Your task to perform on an android device: View the shopping cart on ebay. Add "macbook" to the cart on ebay, then select checkout. Image 0: 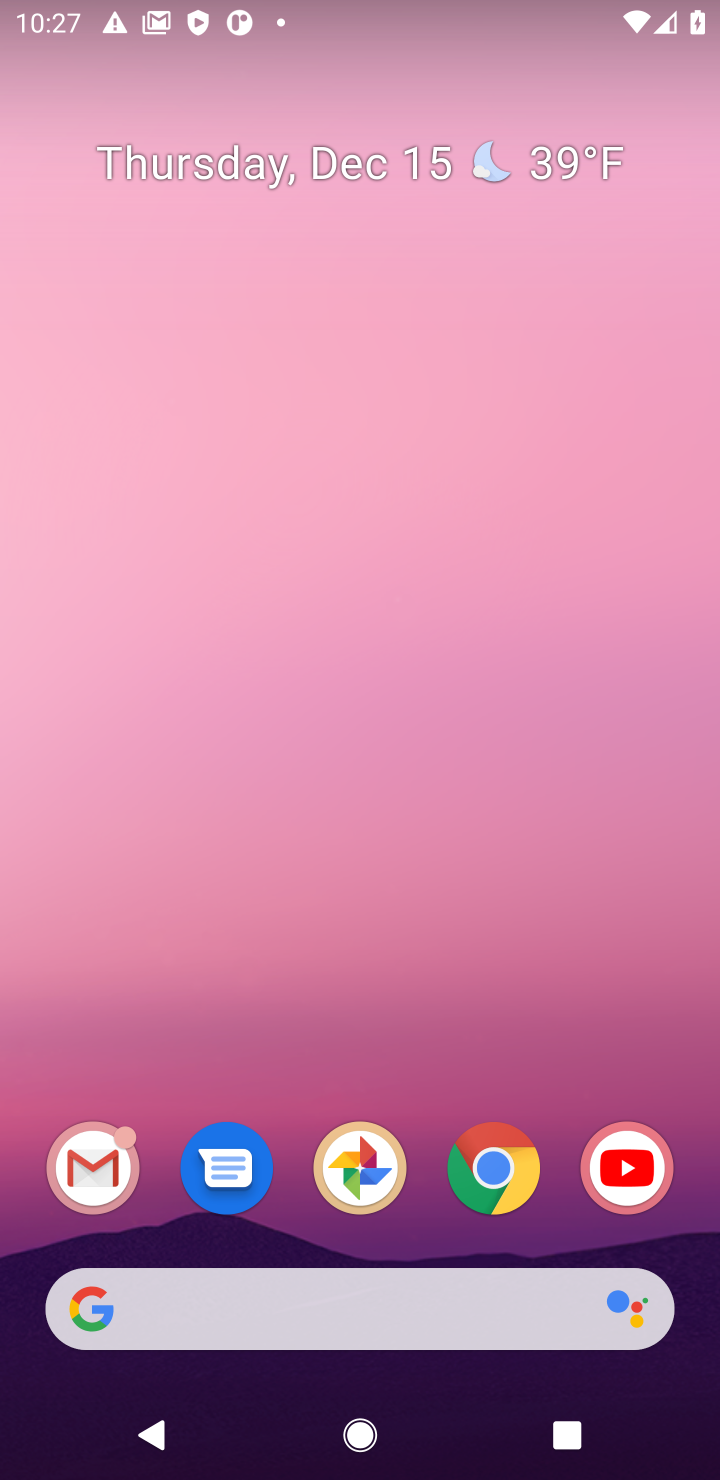
Step 0: click (488, 1169)
Your task to perform on an android device: View the shopping cart on ebay. Add "macbook" to the cart on ebay, then select checkout. Image 1: 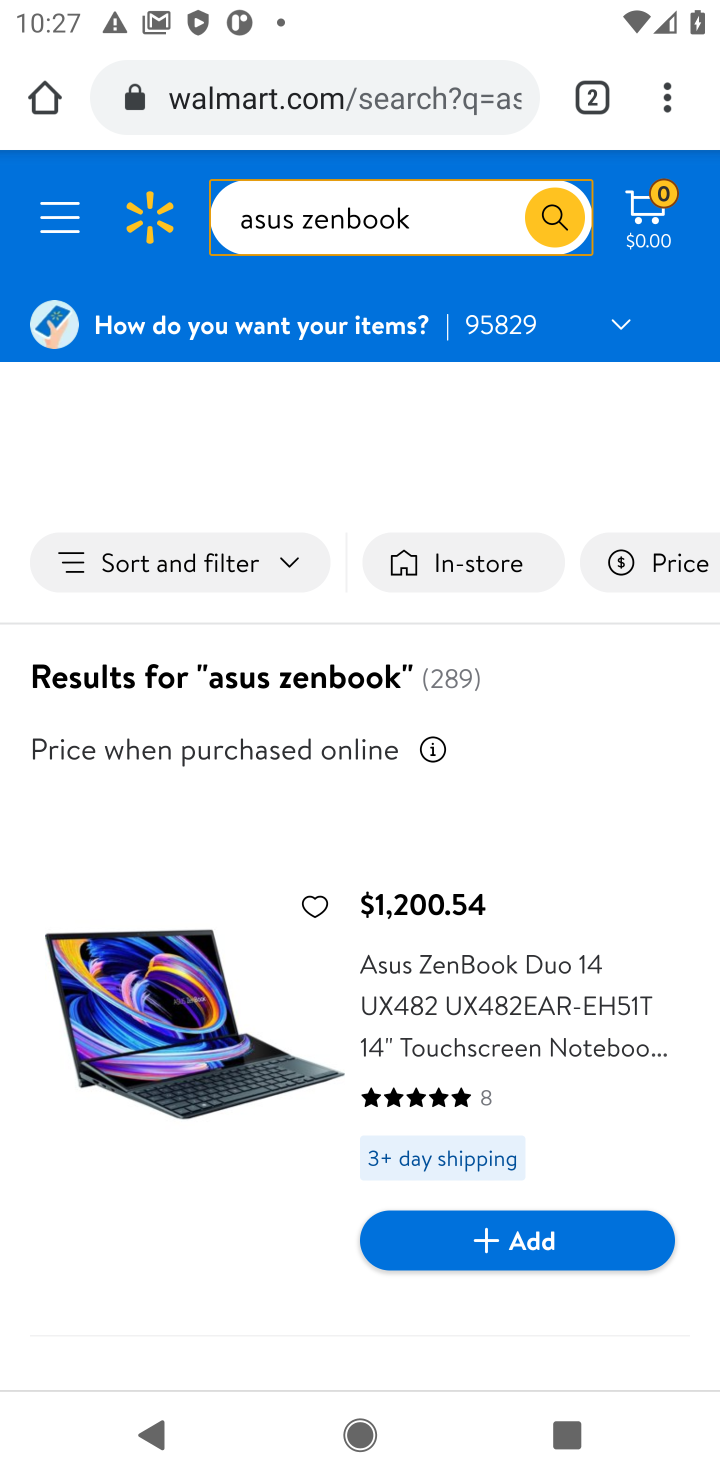
Step 1: click (249, 94)
Your task to perform on an android device: View the shopping cart on ebay. Add "macbook" to the cart on ebay, then select checkout. Image 2: 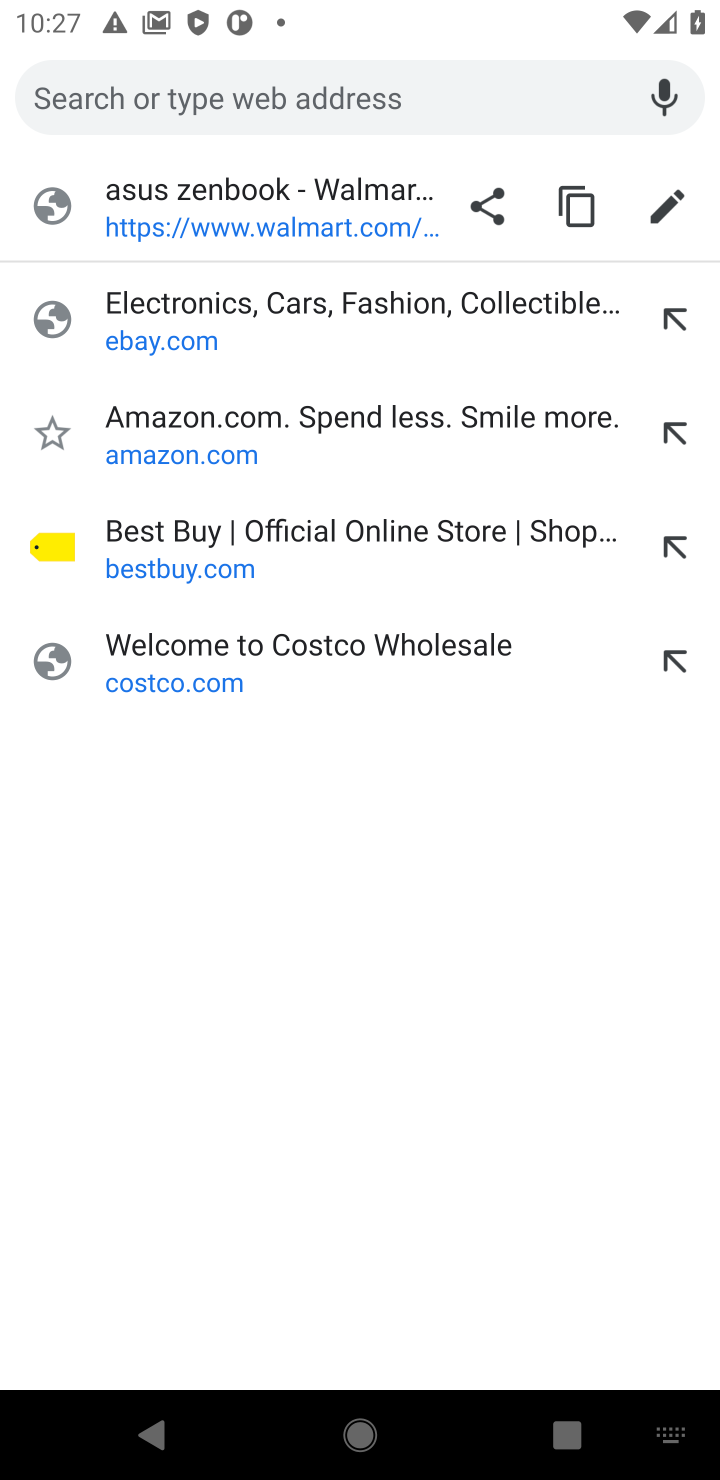
Step 2: type "ebay"
Your task to perform on an android device: View the shopping cart on ebay. Add "macbook" to the cart on ebay, then select checkout. Image 3: 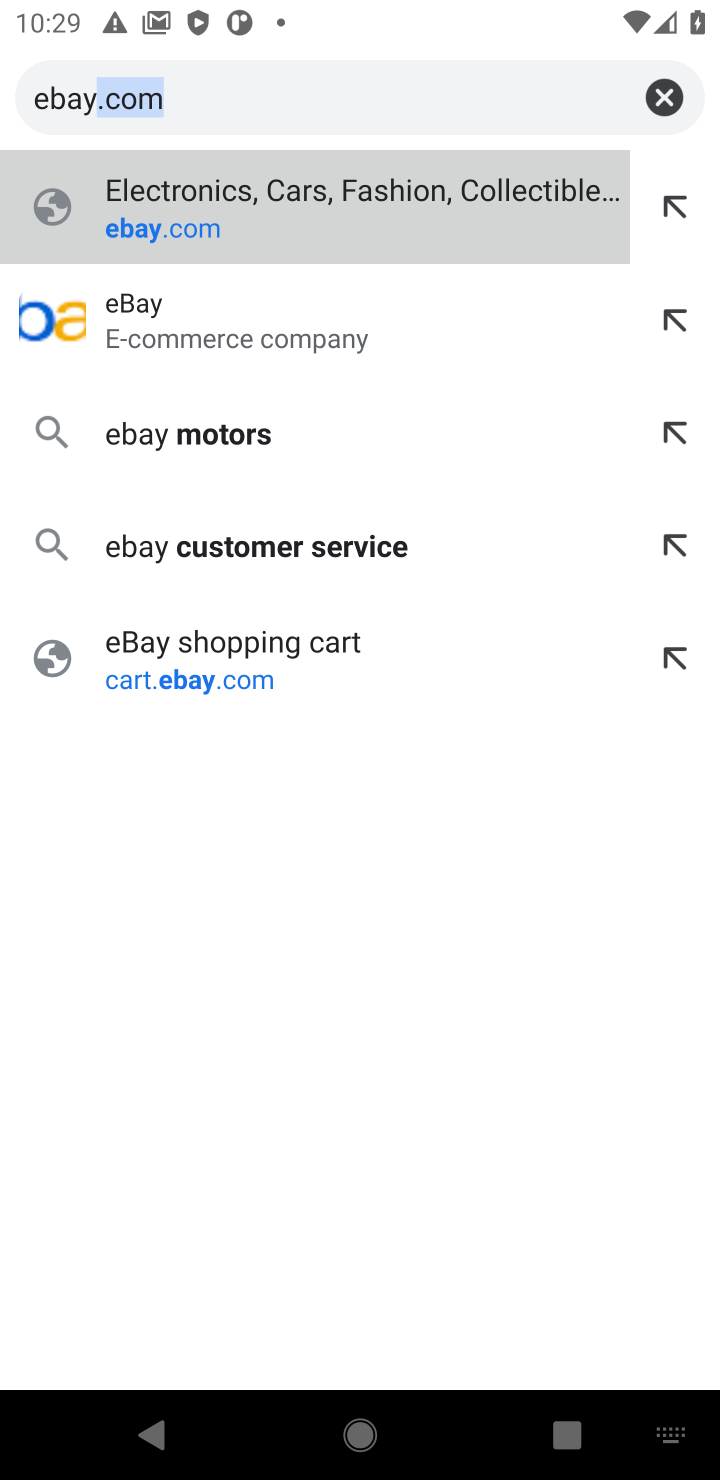
Step 3: click (372, 212)
Your task to perform on an android device: View the shopping cart on ebay. Add "macbook" to the cart on ebay, then select checkout. Image 4: 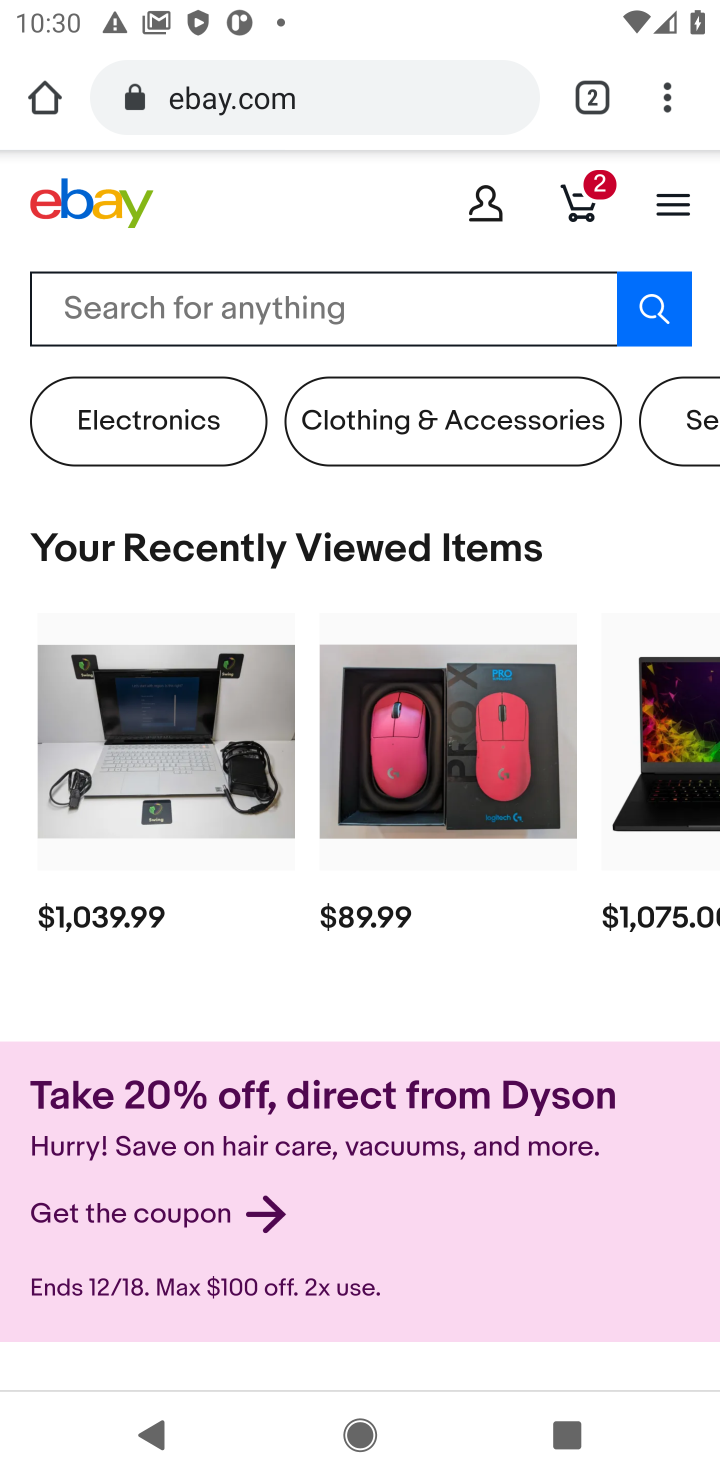
Step 4: click (227, 309)
Your task to perform on an android device: View the shopping cart on ebay. Add "macbook" to the cart on ebay, then select checkout. Image 5: 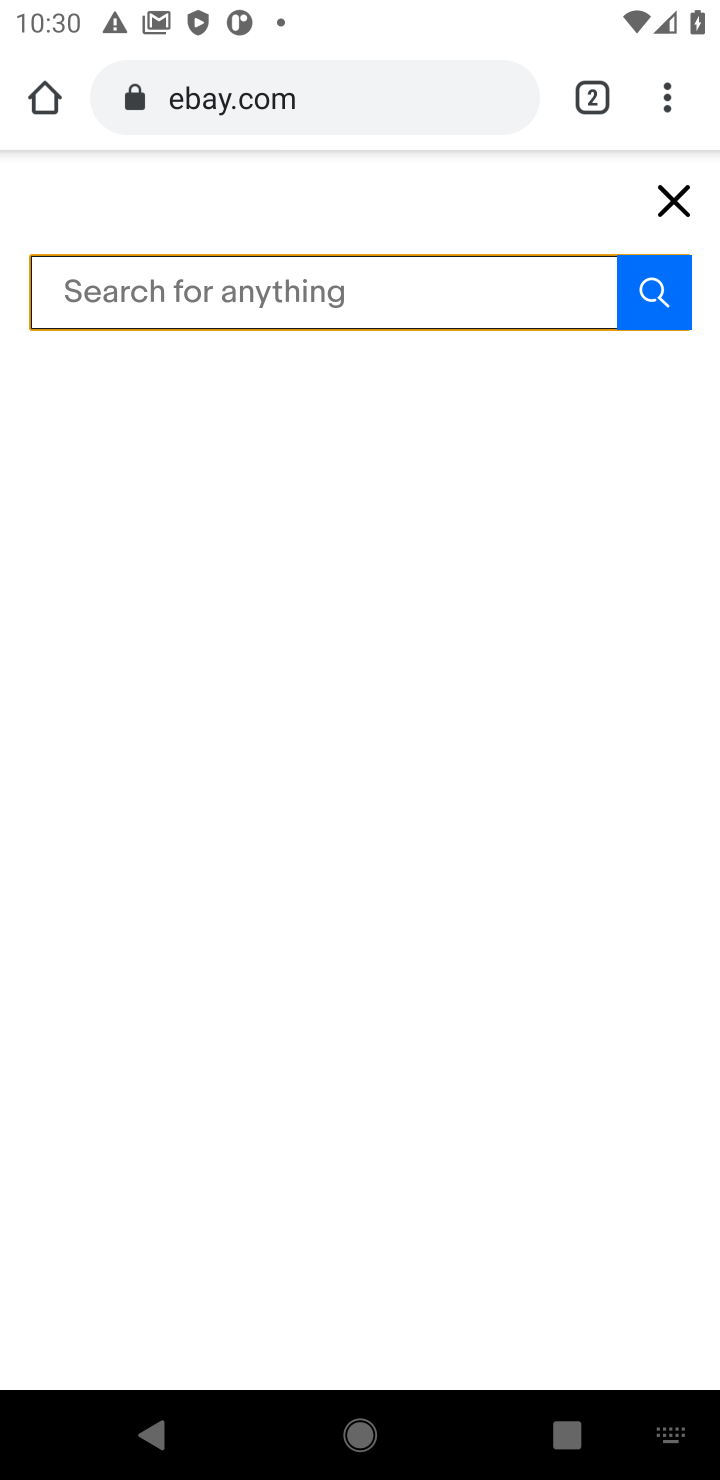
Step 5: type "macbook"
Your task to perform on an android device: View the shopping cart on ebay. Add "macbook" to the cart on ebay, then select checkout. Image 6: 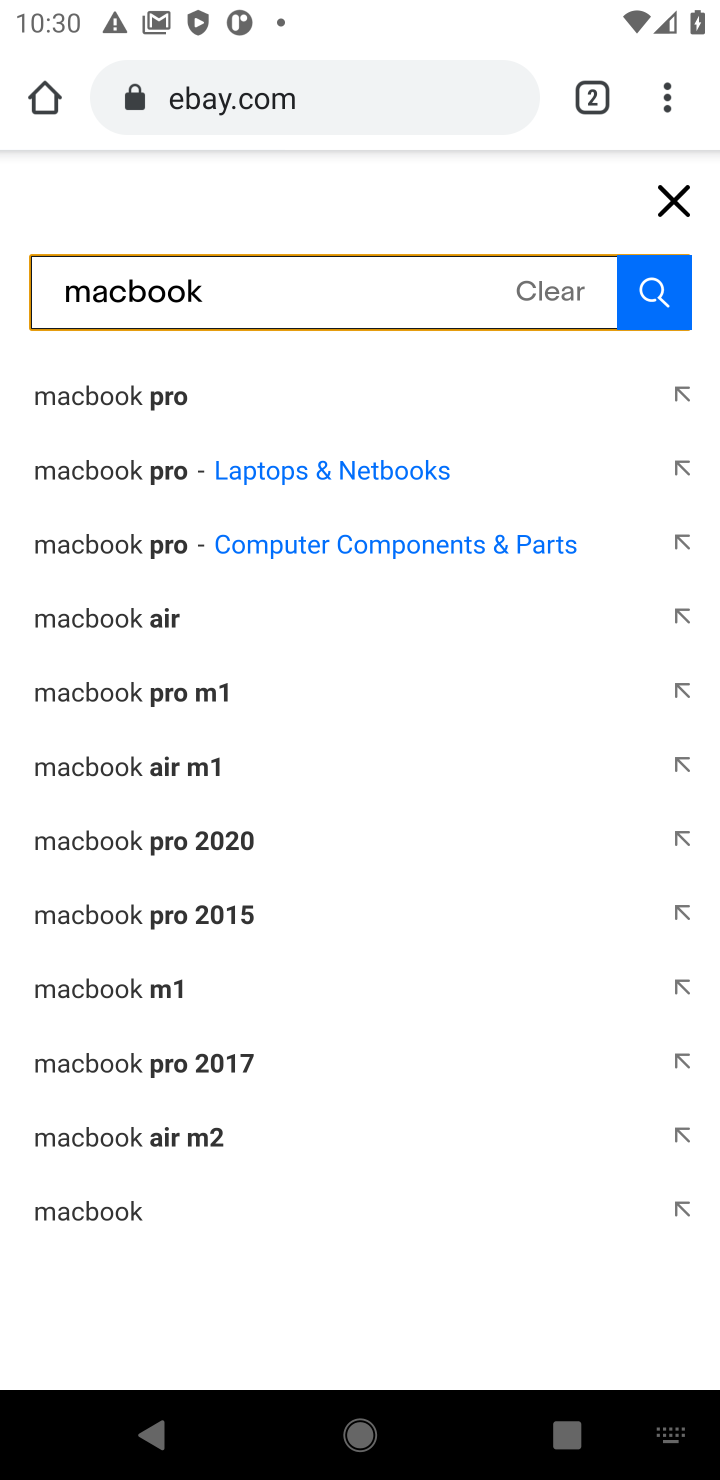
Step 6: click (103, 402)
Your task to perform on an android device: View the shopping cart on ebay. Add "macbook" to the cart on ebay, then select checkout. Image 7: 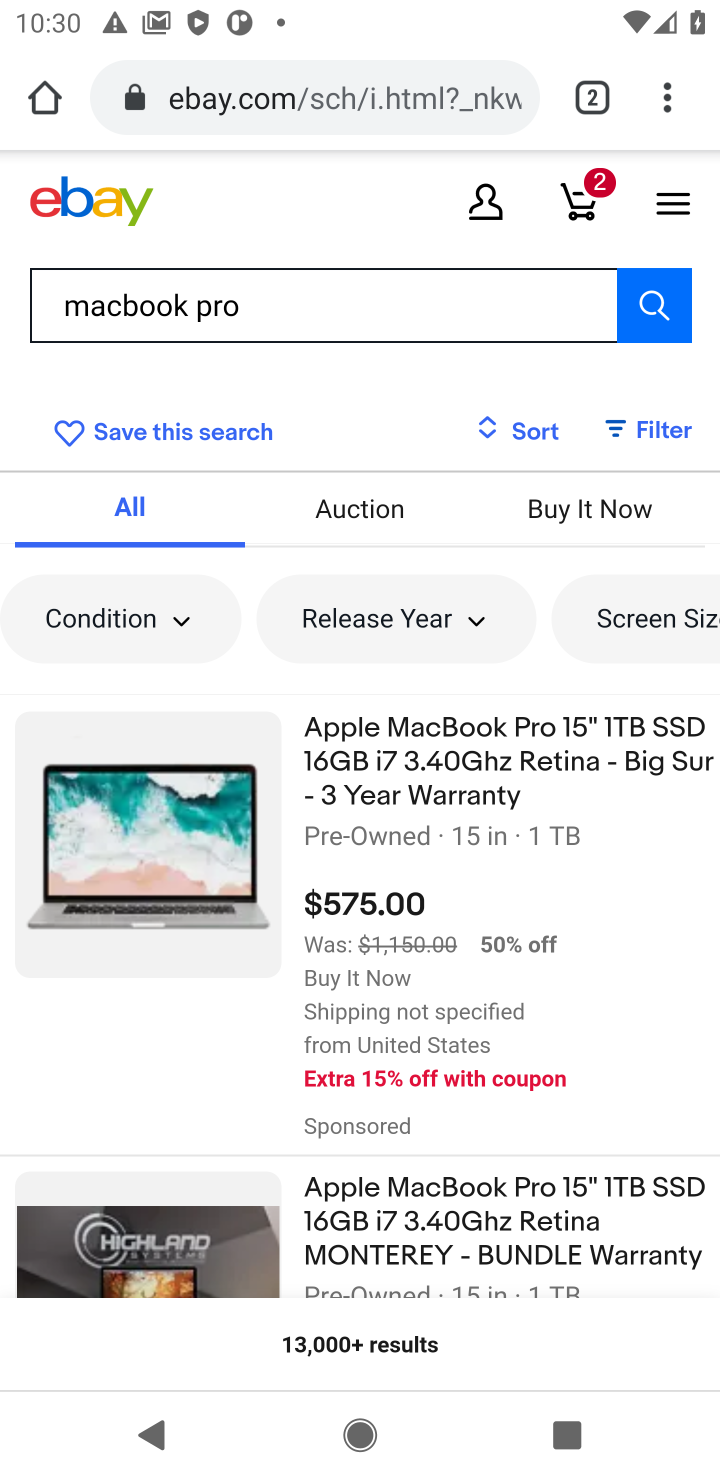
Step 7: click (543, 788)
Your task to perform on an android device: View the shopping cart on ebay. Add "macbook" to the cart on ebay, then select checkout. Image 8: 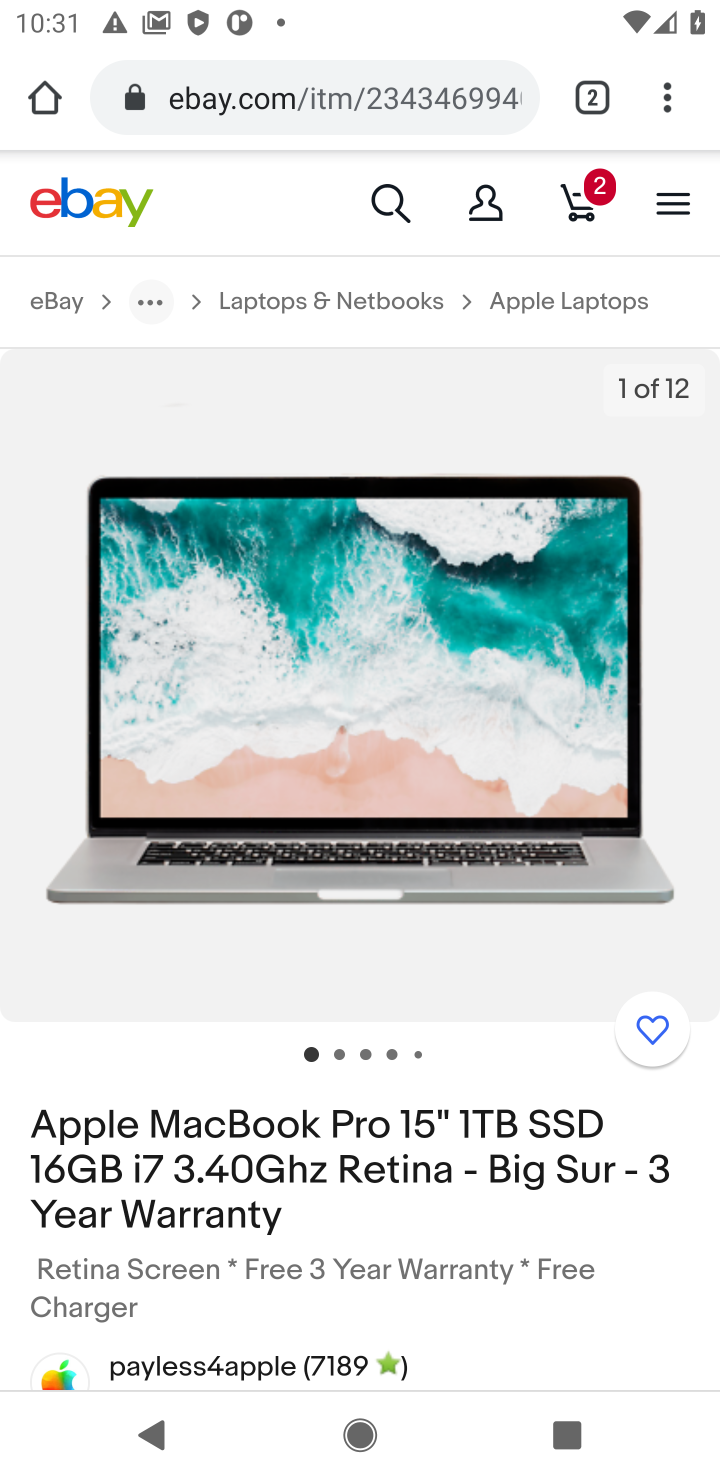
Step 8: drag from (423, 1219) to (368, 341)
Your task to perform on an android device: View the shopping cart on ebay. Add "macbook" to the cart on ebay, then select checkout. Image 9: 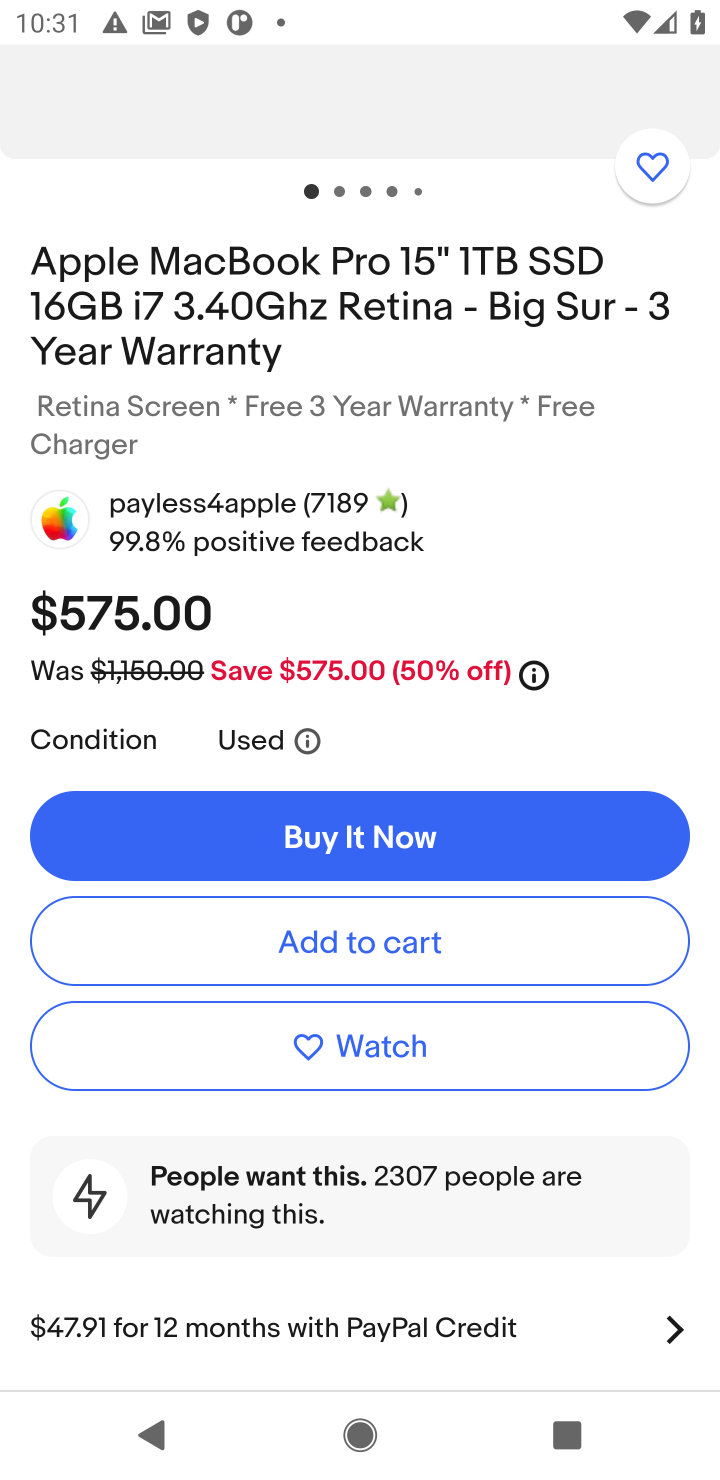
Step 9: click (419, 946)
Your task to perform on an android device: View the shopping cart on ebay. Add "macbook" to the cart on ebay, then select checkout. Image 10: 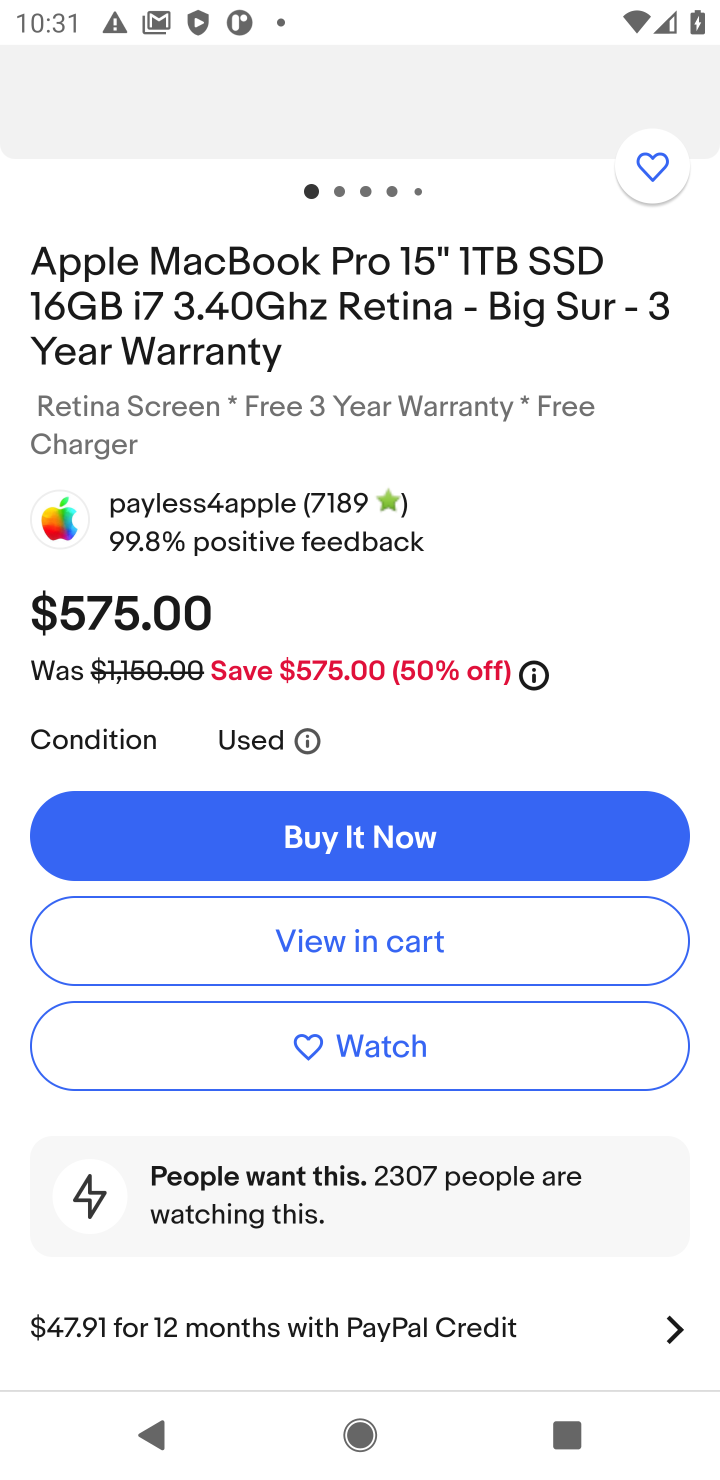
Step 10: click (419, 946)
Your task to perform on an android device: View the shopping cart on ebay. Add "macbook" to the cart on ebay, then select checkout. Image 11: 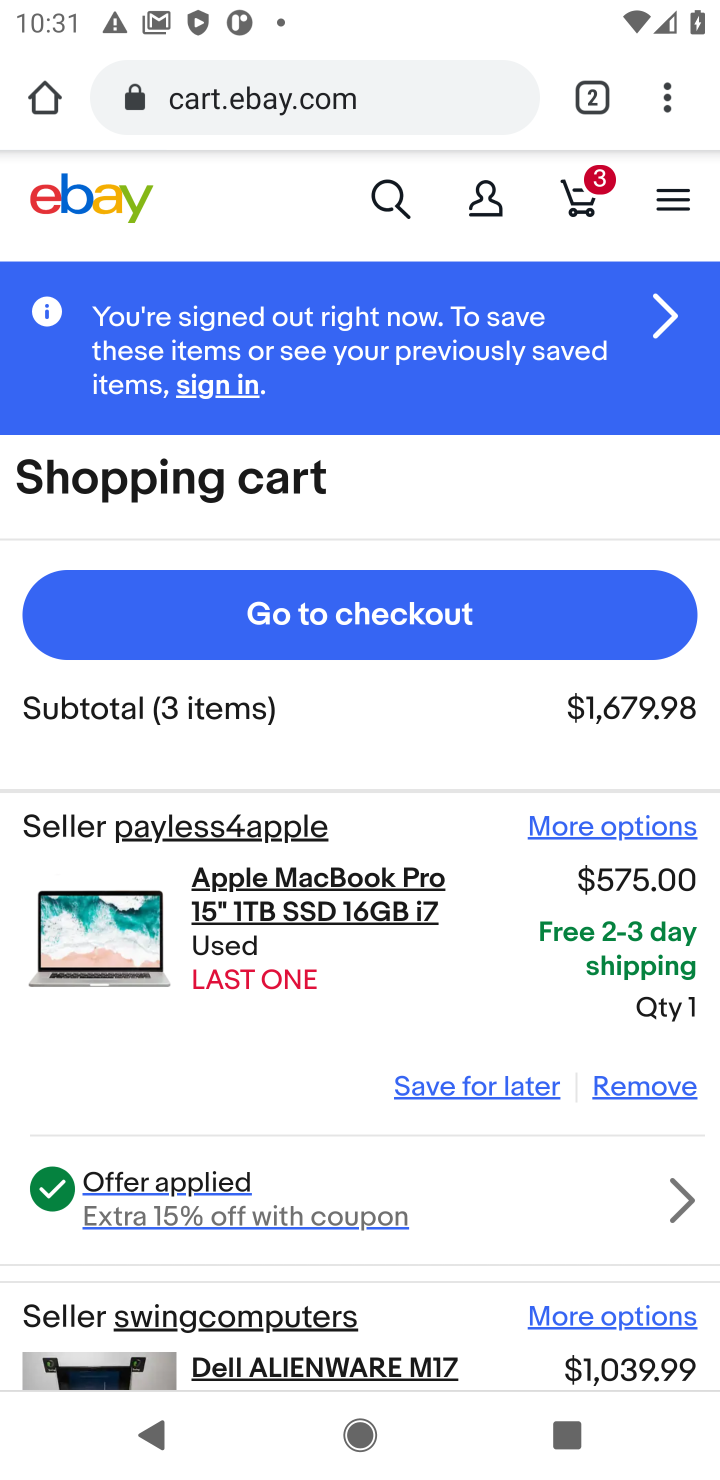
Step 11: click (395, 616)
Your task to perform on an android device: View the shopping cart on ebay. Add "macbook" to the cart on ebay, then select checkout. Image 12: 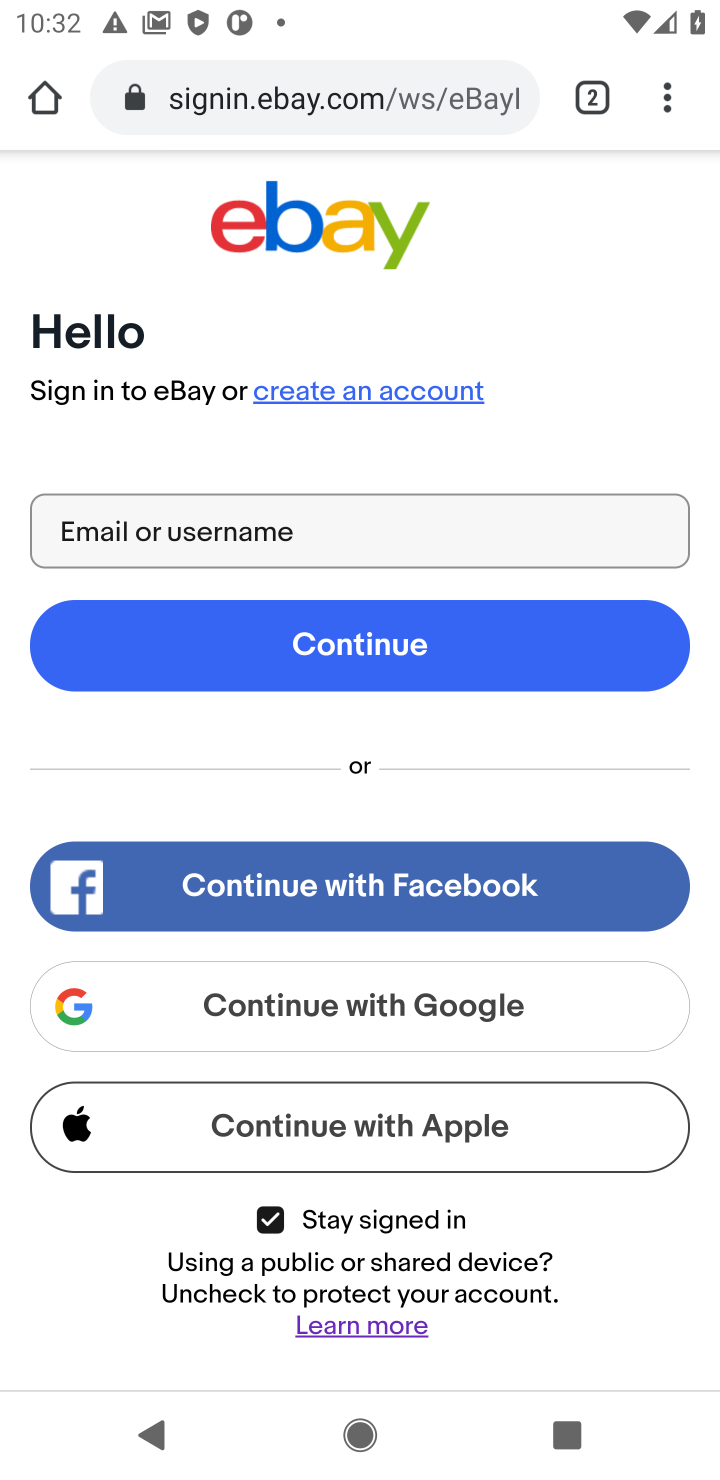
Step 12: task complete